Your task to perform on an android device: toggle wifi Image 0: 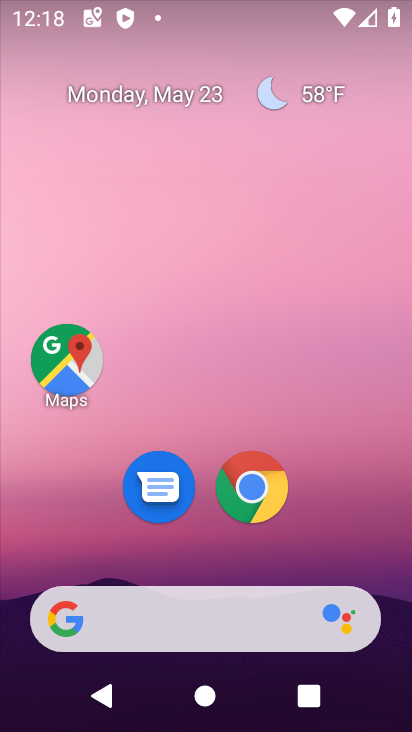
Step 0: drag from (395, 609) to (335, 61)
Your task to perform on an android device: toggle wifi Image 1: 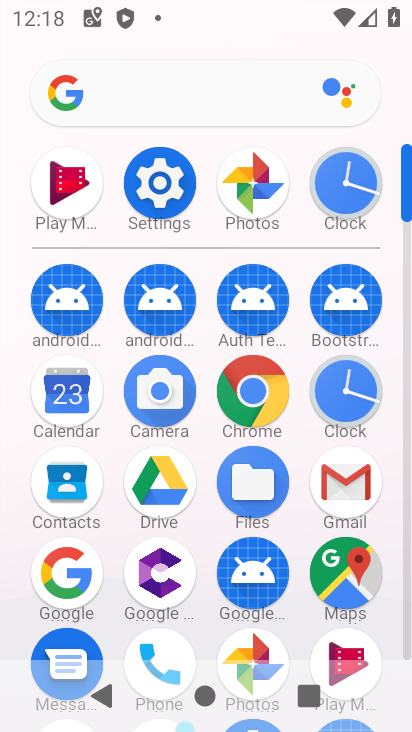
Step 1: click (408, 642)
Your task to perform on an android device: toggle wifi Image 2: 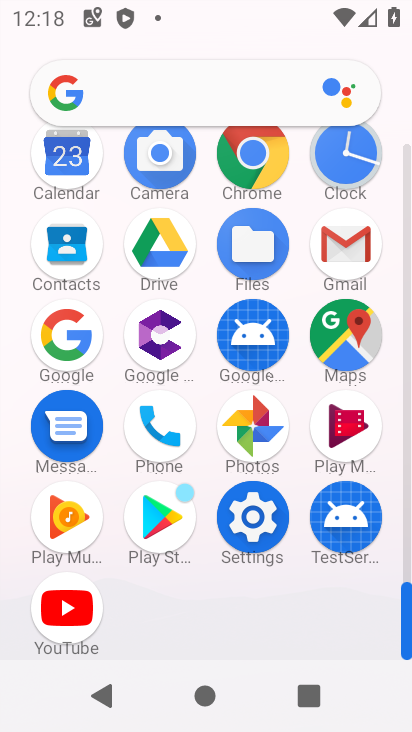
Step 2: click (251, 516)
Your task to perform on an android device: toggle wifi Image 3: 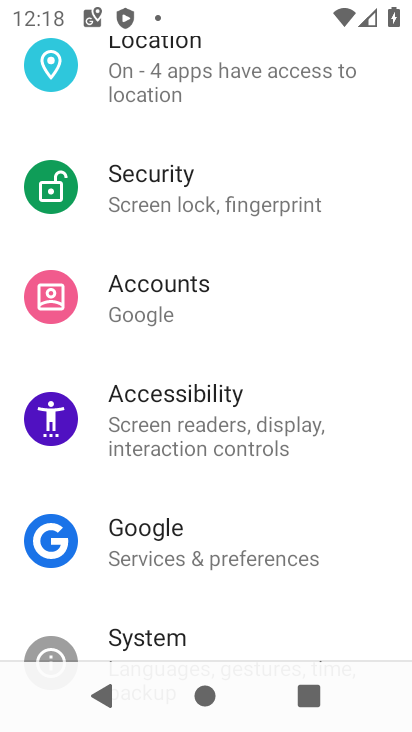
Step 3: drag from (355, 119) to (335, 426)
Your task to perform on an android device: toggle wifi Image 4: 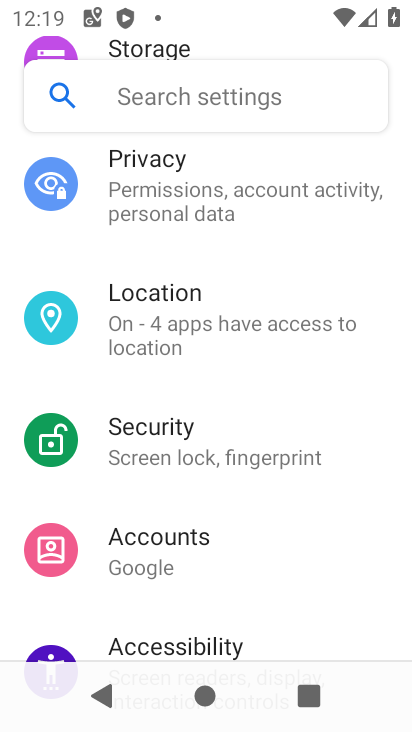
Step 4: drag from (350, 207) to (330, 486)
Your task to perform on an android device: toggle wifi Image 5: 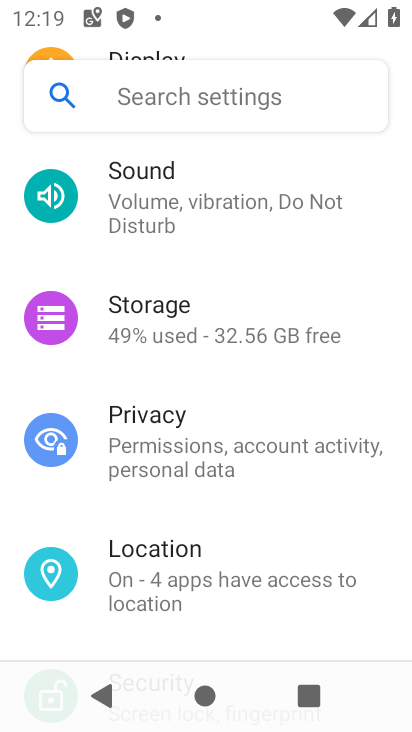
Step 5: drag from (340, 188) to (334, 572)
Your task to perform on an android device: toggle wifi Image 6: 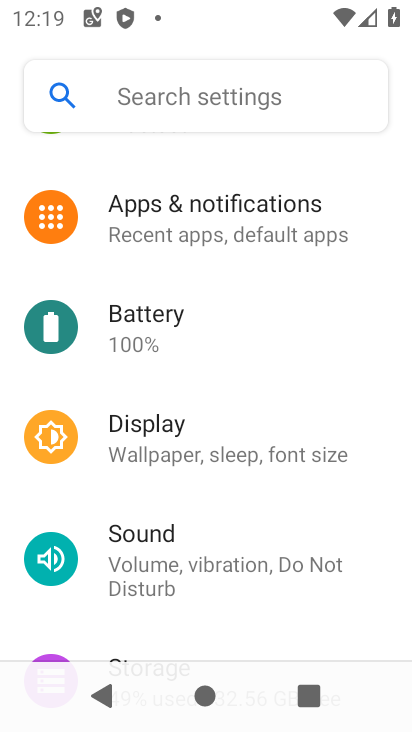
Step 6: drag from (313, 228) to (257, 594)
Your task to perform on an android device: toggle wifi Image 7: 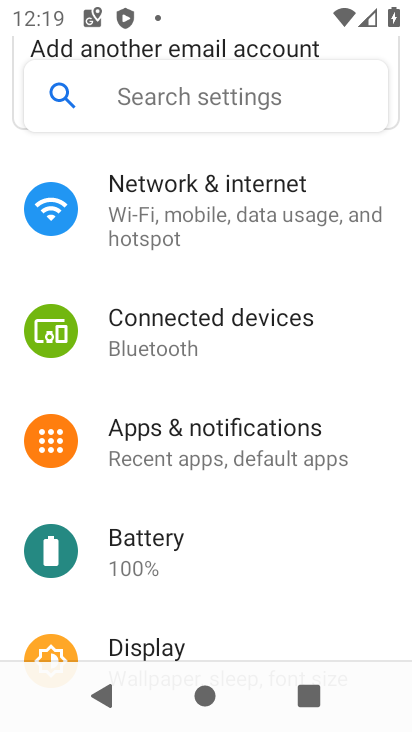
Step 7: click (152, 193)
Your task to perform on an android device: toggle wifi Image 8: 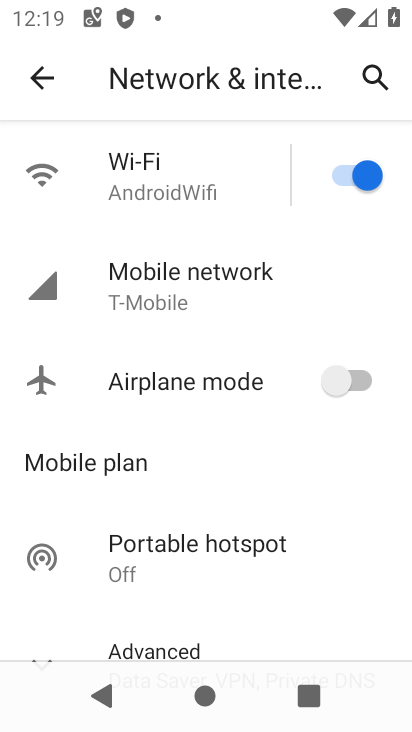
Step 8: click (341, 175)
Your task to perform on an android device: toggle wifi Image 9: 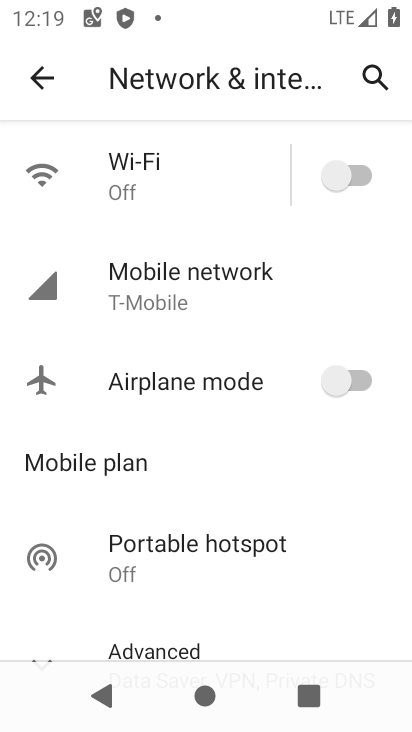
Step 9: task complete